Your task to perform on an android device: Is it going to rain this weekend? Image 0: 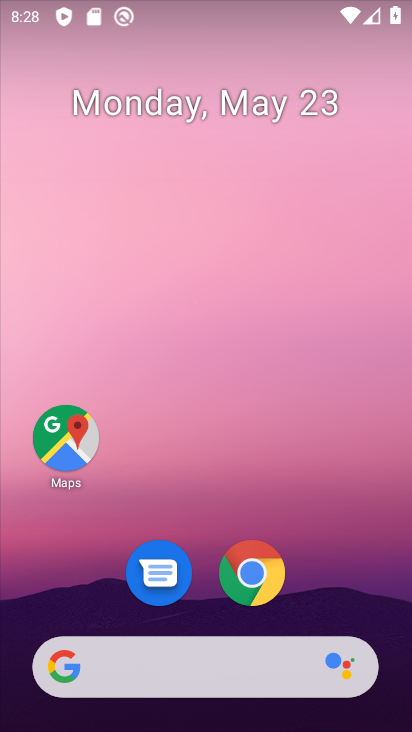
Step 0: click (200, 665)
Your task to perform on an android device: Is it going to rain this weekend? Image 1: 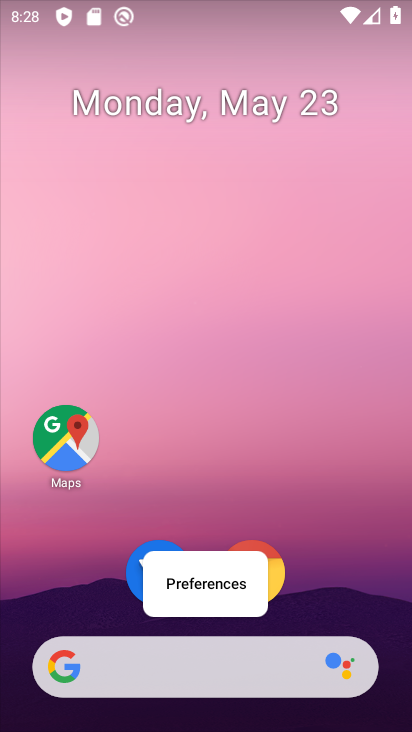
Step 1: click (201, 674)
Your task to perform on an android device: Is it going to rain this weekend? Image 2: 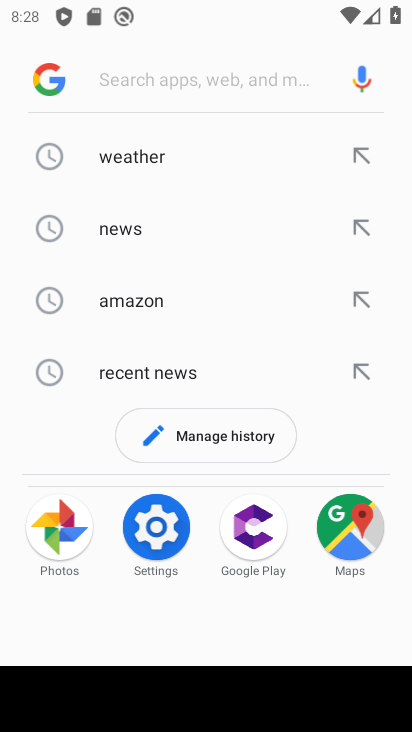
Step 2: click (124, 155)
Your task to perform on an android device: Is it going to rain this weekend? Image 3: 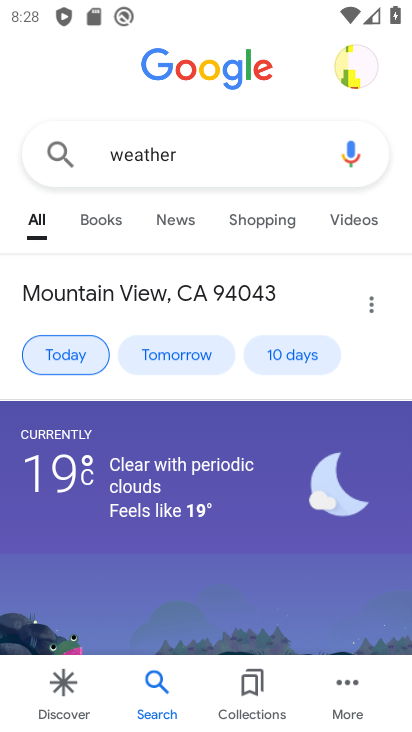
Step 3: click (76, 350)
Your task to perform on an android device: Is it going to rain this weekend? Image 4: 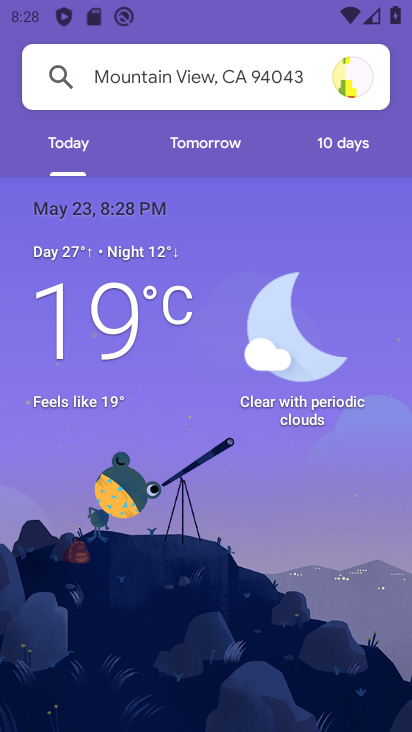
Step 4: click (341, 146)
Your task to perform on an android device: Is it going to rain this weekend? Image 5: 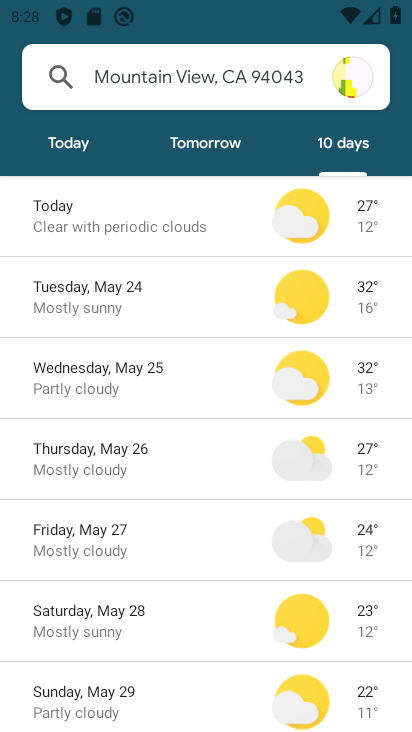
Step 5: click (174, 601)
Your task to perform on an android device: Is it going to rain this weekend? Image 6: 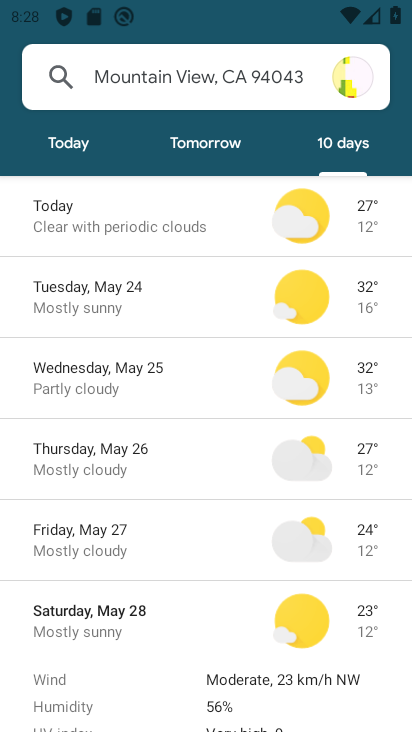
Step 6: task complete